Your task to perform on an android device: turn on wifi Image 0: 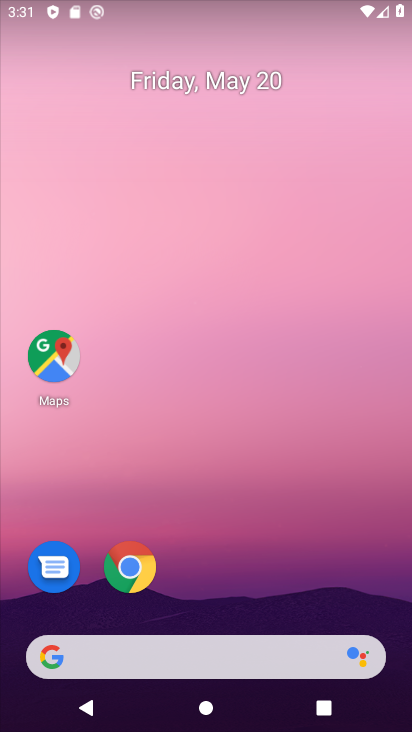
Step 0: drag from (111, 11) to (34, 607)
Your task to perform on an android device: turn on wifi Image 1: 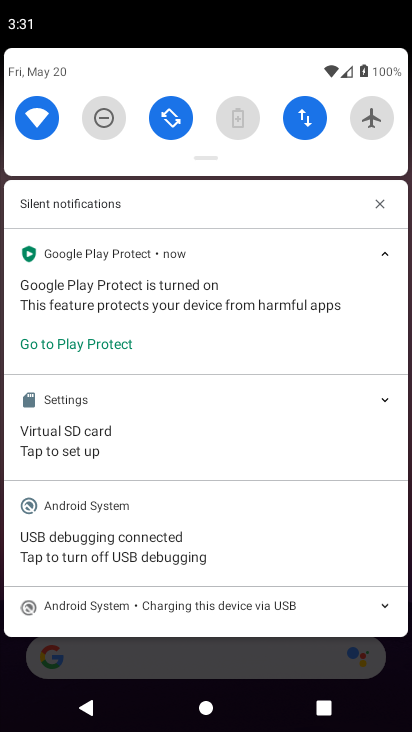
Step 1: task complete